Your task to perform on an android device: toggle wifi Image 0: 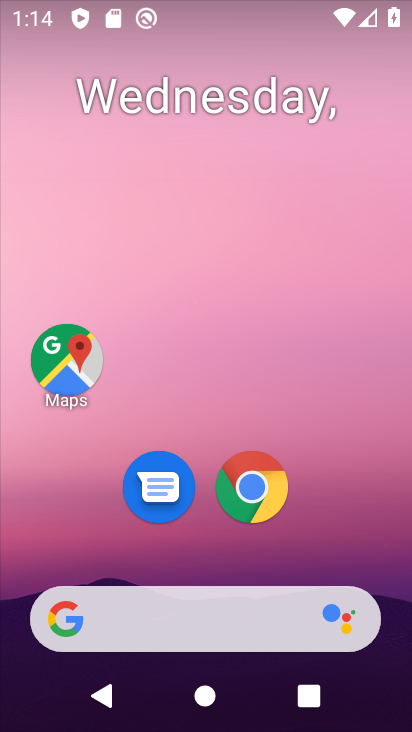
Step 0: drag from (381, 510) to (333, 202)
Your task to perform on an android device: toggle wifi Image 1: 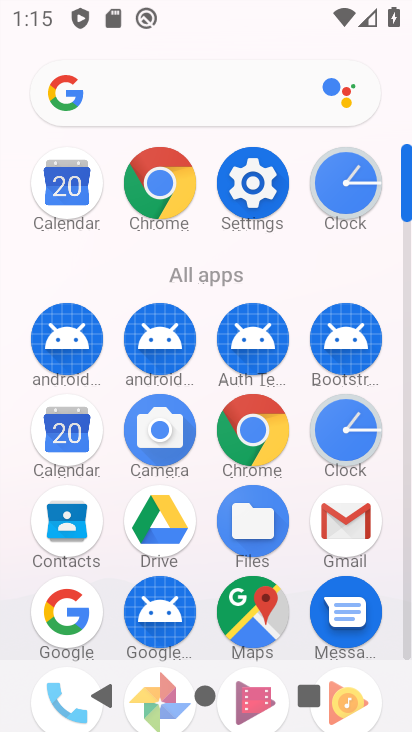
Step 1: click (246, 166)
Your task to perform on an android device: toggle wifi Image 2: 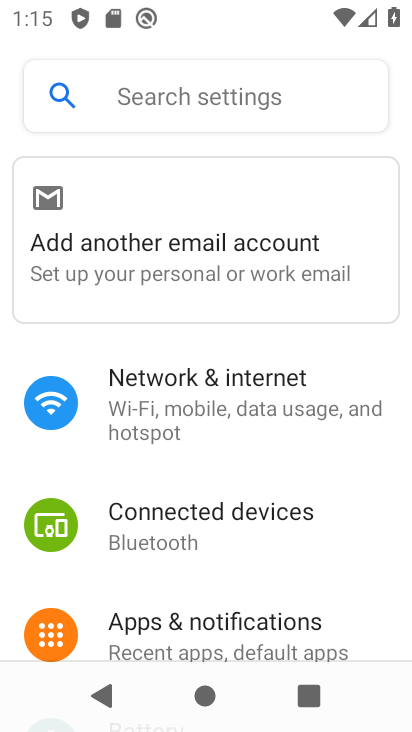
Step 2: click (257, 408)
Your task to perform on an android device: toggle wifi Image 3: 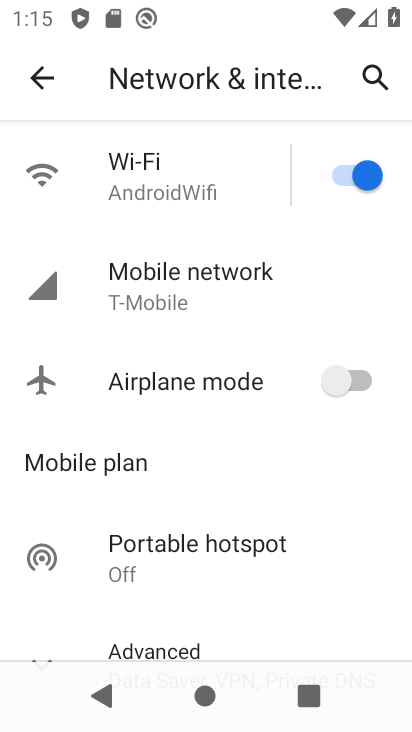
Step 3: click (352, 168)
Your task to perform on an android device: toggle wifi Image 4: 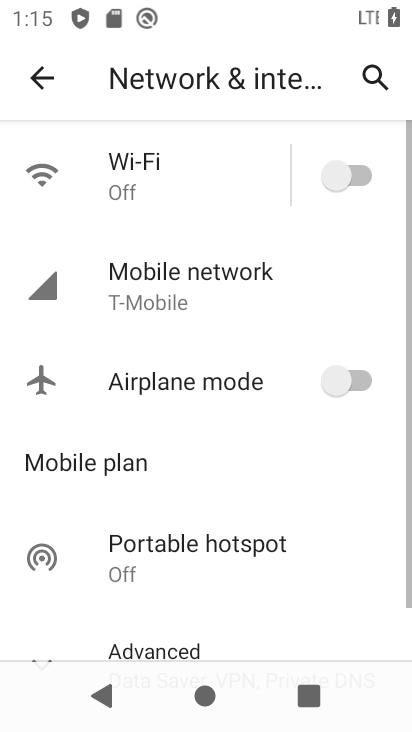
Step 4: task complete